Your task to perform on an android device: Open Google Maps Image 0: 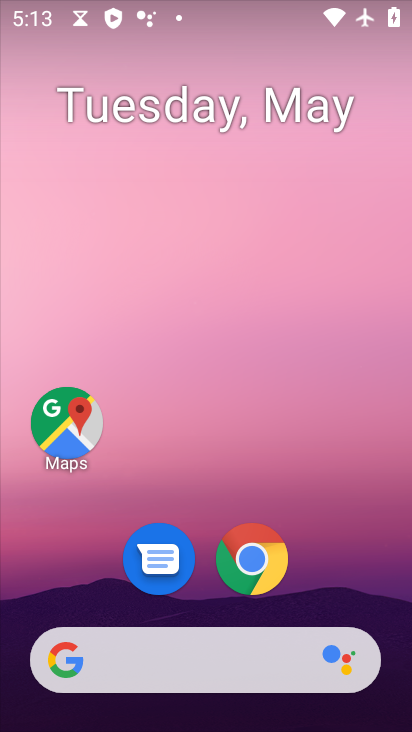
Step 0: drag from (322, 686) to (143, 223)
Your task to perform on an android device: Open Google Maps Image 1: 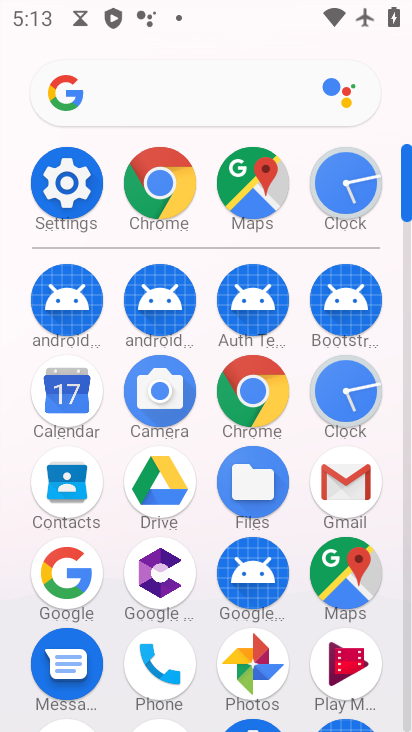
Step 1: click (251, 172)
Your task to perform on an android device: Open Google Maps Image 2: 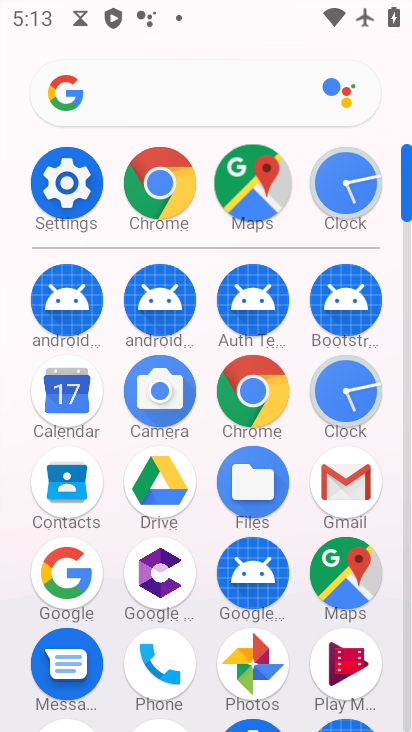
Step 2: click (251, 172)
Your task to perform on an android device: Open Google Maps Image 3: 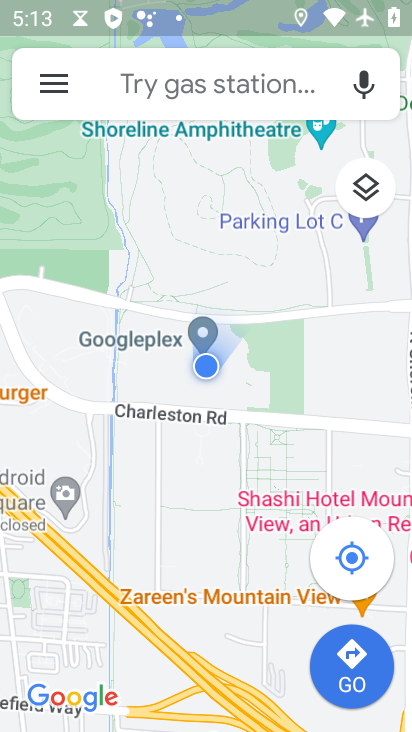
Step 3: task complete